Your task to perform on an android device: change the clock display to show seconds Image 0: 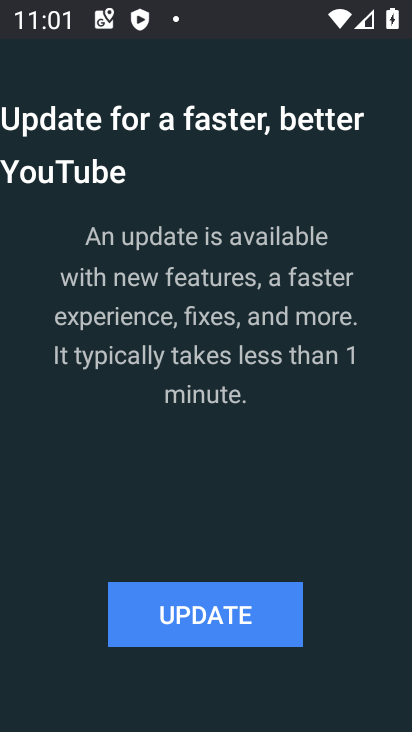
Step 0: press home button
Your task to perform on an android device: change the clock display to show seconds Image 1: 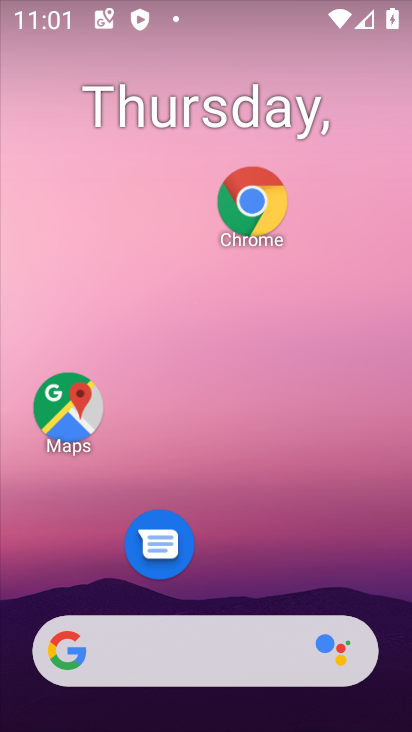
Step 1: drag from (227, 586) to (227, 71)
Your task to perform on an android device: change the clock display to show seconds Image 2: 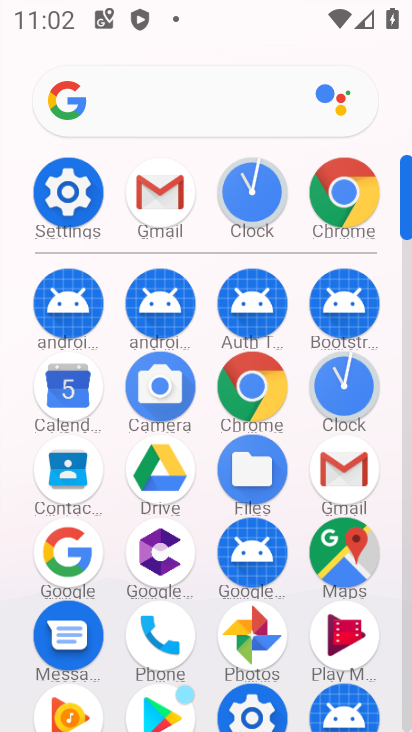
Step 2: click (341, 376)
Your task to perform on an android device: change the clock display to show seconds Image 3: 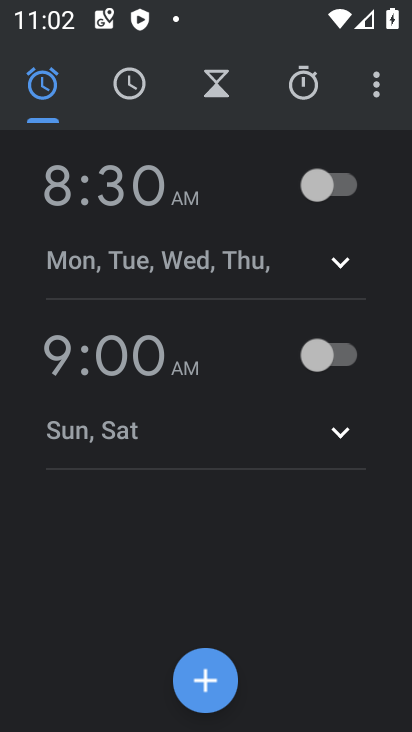
Step 3: click (380, 91)
Your task to perform on an android device: change the clock display to show seconds Image 4: 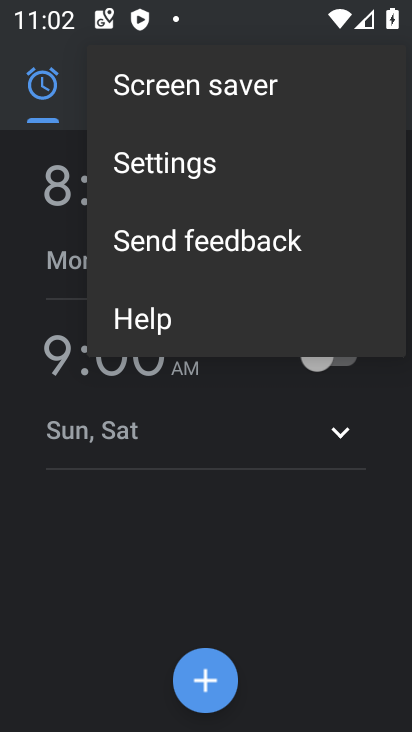
Step 4: click (223, 165)
Your task to perform on an android device: change the clock display to show seconds Image 5: 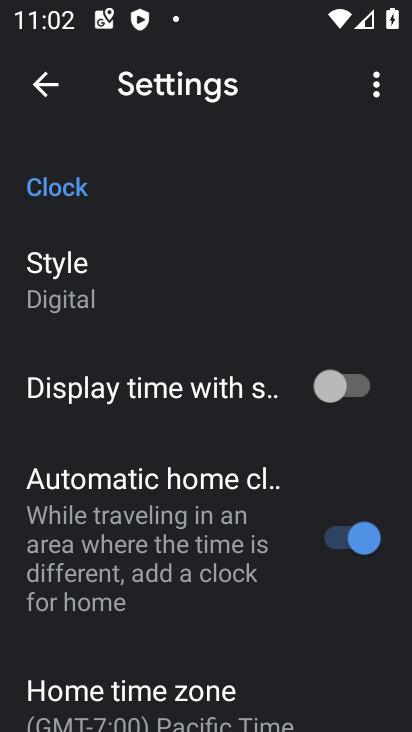
Step 5: click (342, 394)
Your task to perform on an android device: change the clock display to show seconds Image 6: 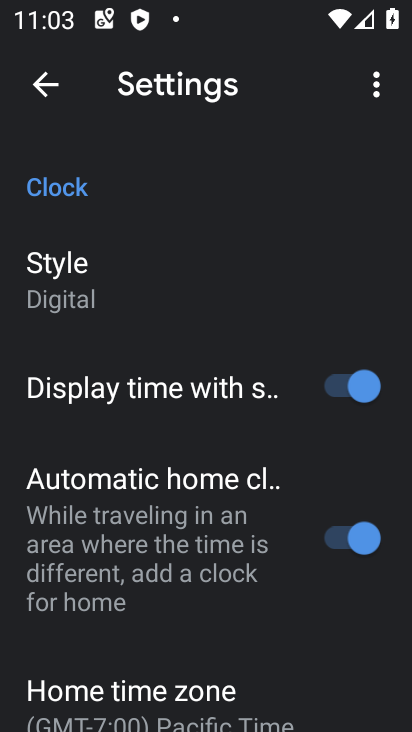
Step 6: task complete